Your task to perform on an android device: Open notification settings Image 0: 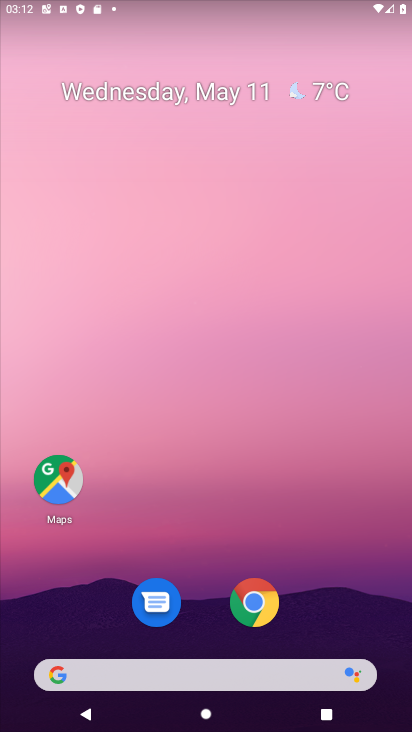
Step 0: drag from (194, 597) to (117, 108)
Your task to perform on an android device: Open notification settings Image 1: 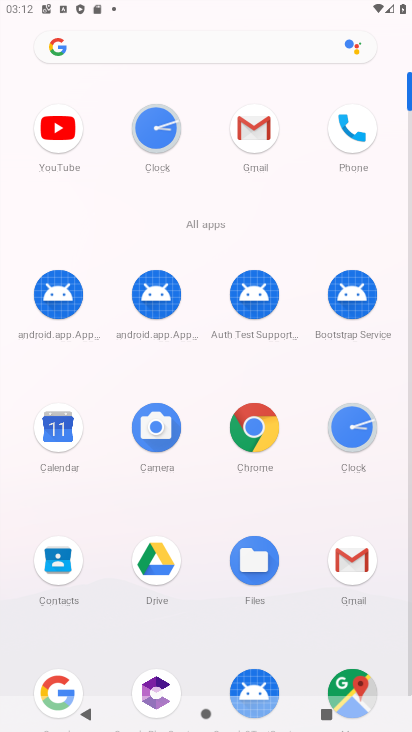
Step 1: drag from (80, 590) to (89, 145)
Your task to perform on an android device: Open notification settings Image 2: 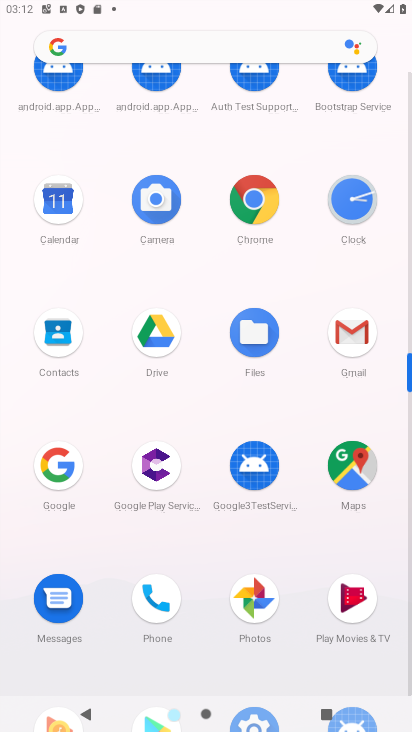
Step 2: drag from (219, 664) to (229, 111)
Your task to perform on an android device: Open notification settings Image 3: 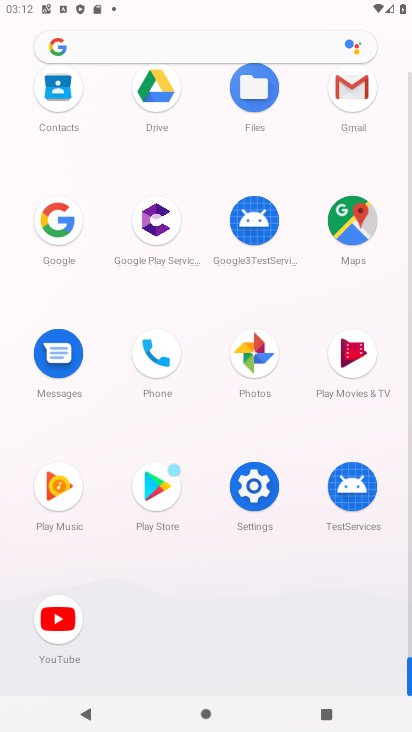
Step 3: click (252, 481)
Your task to perform on an android device: Open notification settings Image 4: 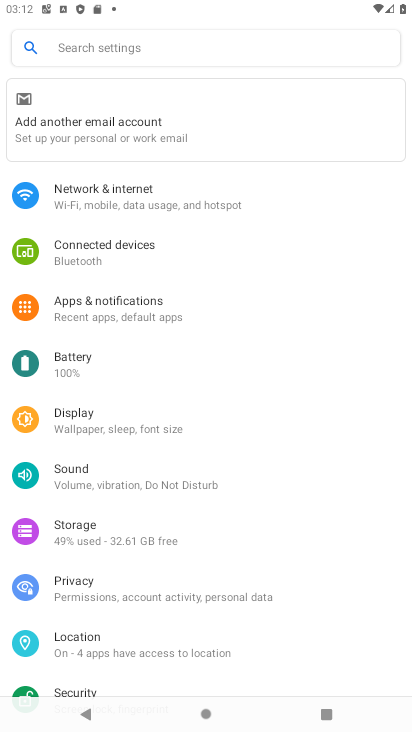
Step 4: click (96, 303)
Your task to perform on an android device: Open notification settings Image 5: 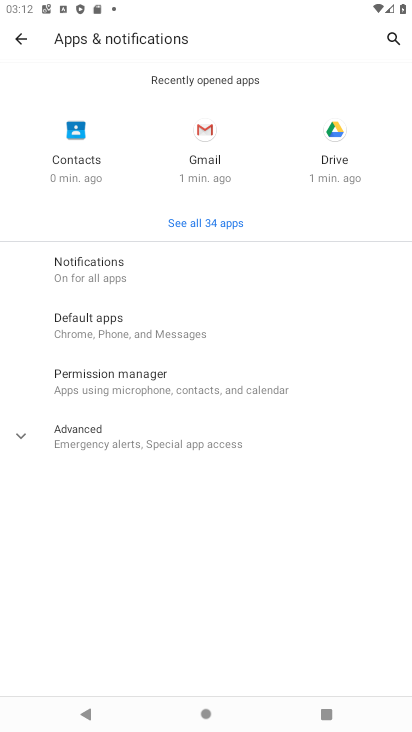
Step 5: click (112, 266)
Your task to perform on an android device: Open notification settings Image 6: 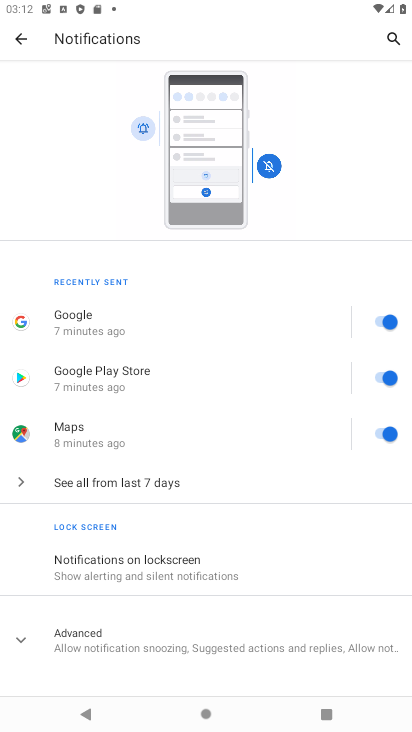
Step 6: task complete